Your task to perform on an android device: toggle data saver in the chrome app Image 0: 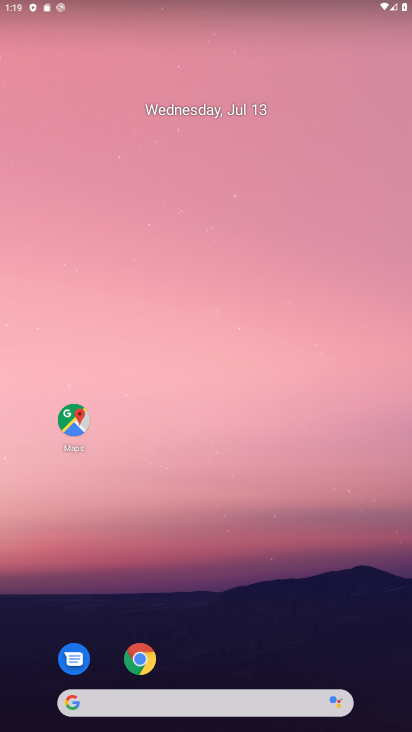
Step 0: click (141, 660)
Your task to perform on an android device: toggle data saver in the chrome app Image 1: 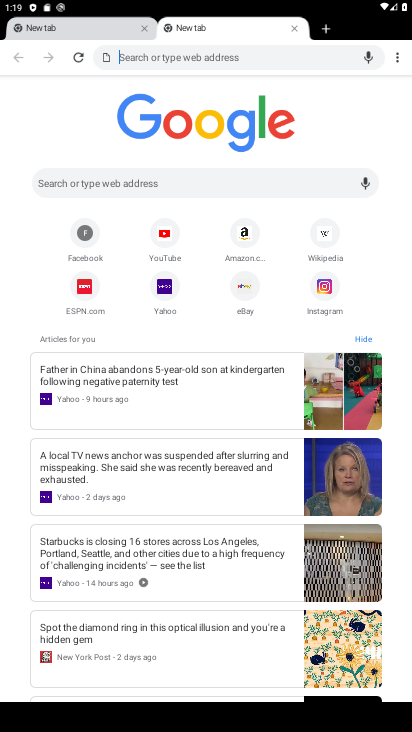
Step 1: click (398, 61)
Your task to perform on an android device: toggle data saver in the chrome app Image 2: 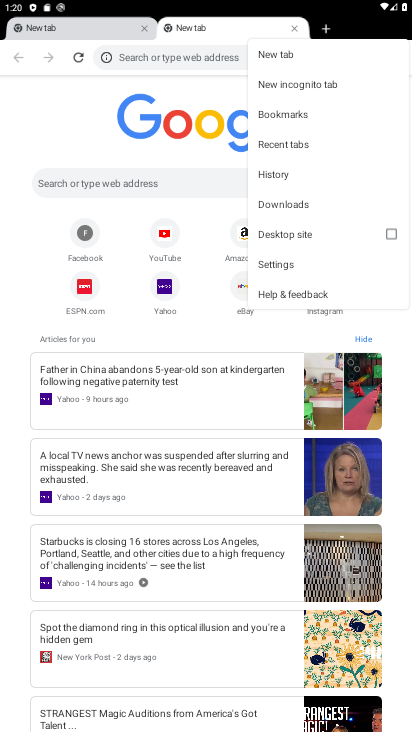
Step 2: click (273, 265)
Your task to perform on an android device: toggle data saver in the chrome app Image 3: 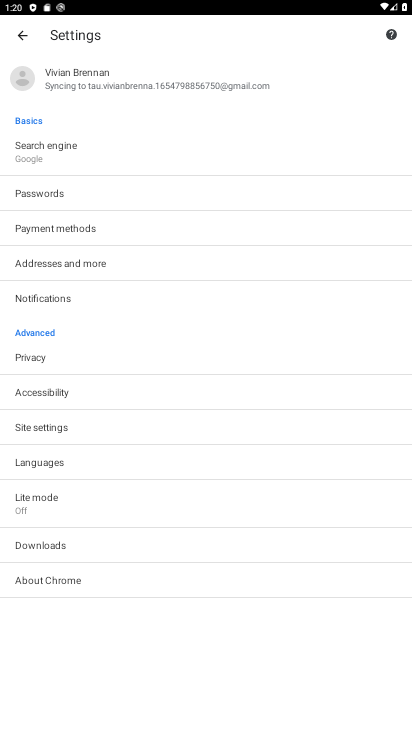
Step 3: click (42, 497)
Your task to perform on an android device: toggle data saver in the chrome app Image 4: 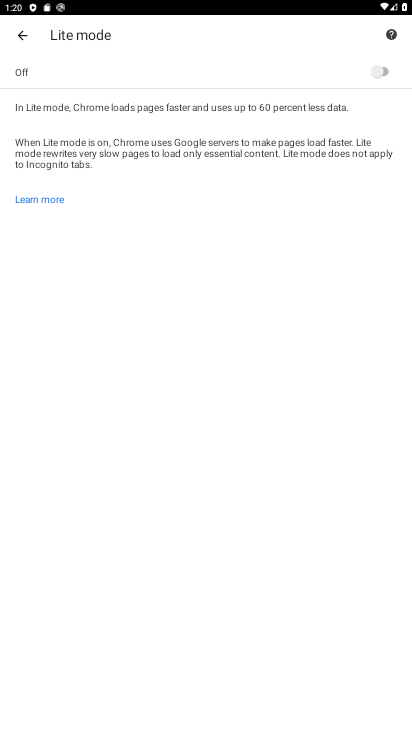
Step 4: click (388, 69)
Your task to perform on an android device: toggle data saver in the chrome app Image 5: 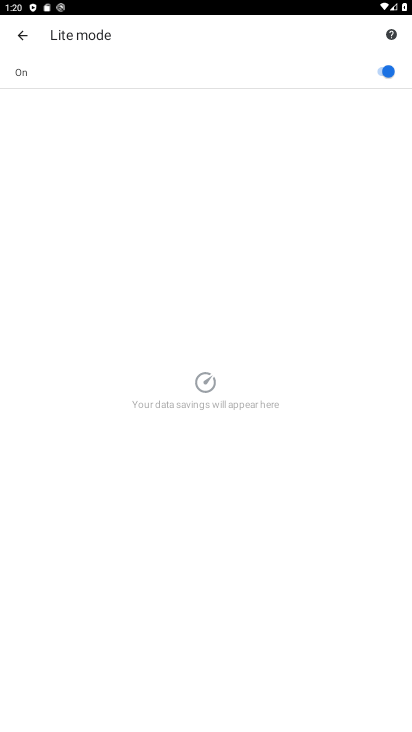
Step 5: task complete